Your task to perform on an android device: Show me recent news Image 0: 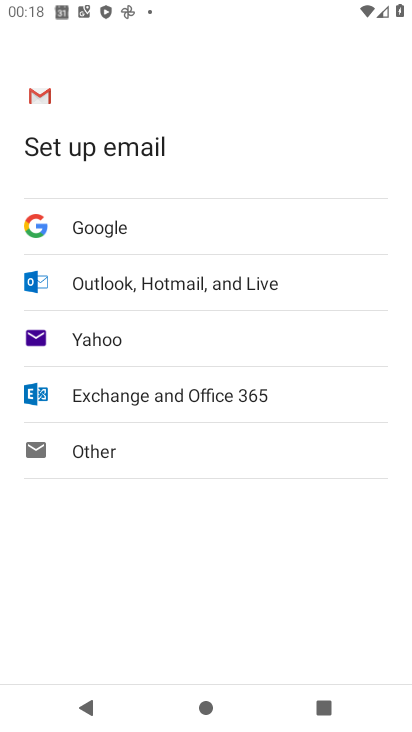
Step 0: press back button
Your task to perform on an android device: Show me recent news Image 1: 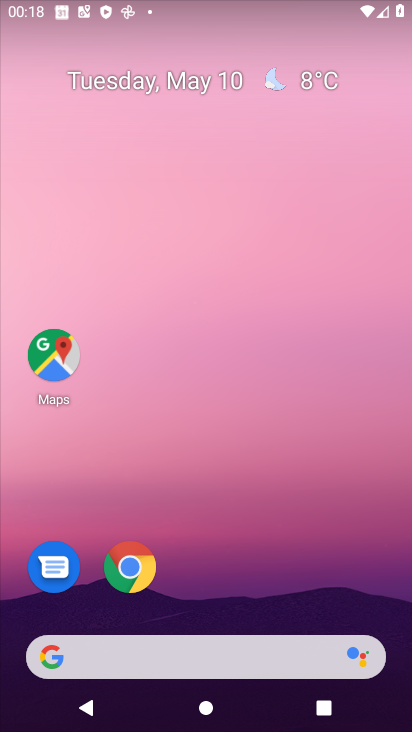
Step 1: drag from (205, 561) to (255, 36)
Your task to perform on an android device: Show me recent news Image 2: 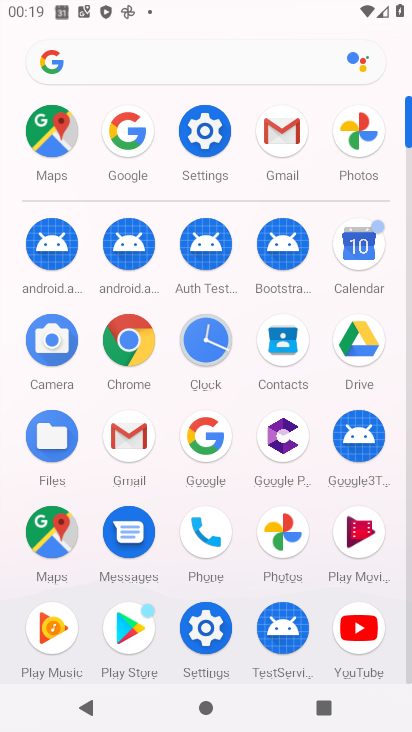
Step 2: click (126, 133)
Your task to perform on an android device: Show me recent news Image 3: 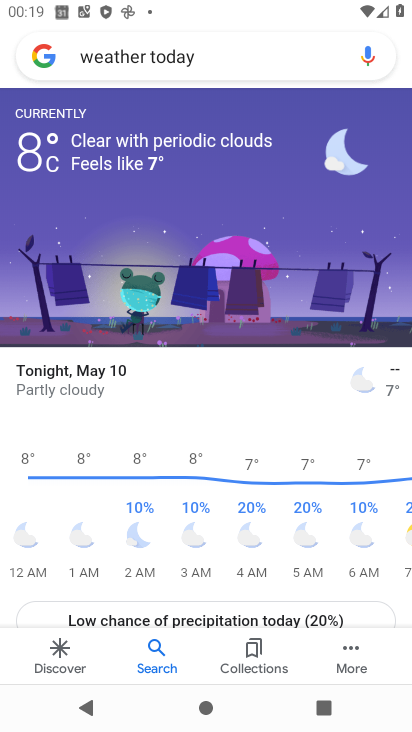
Step 3: click (254, 60)
Your task to perform on an android device: Show me recent news Image 4: 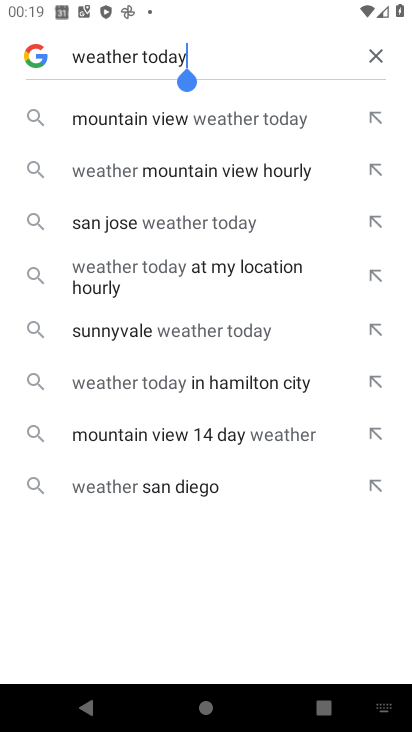
Step 4: click (379, 59)
Your task to perform on an android device: Show me recent news Image 5: 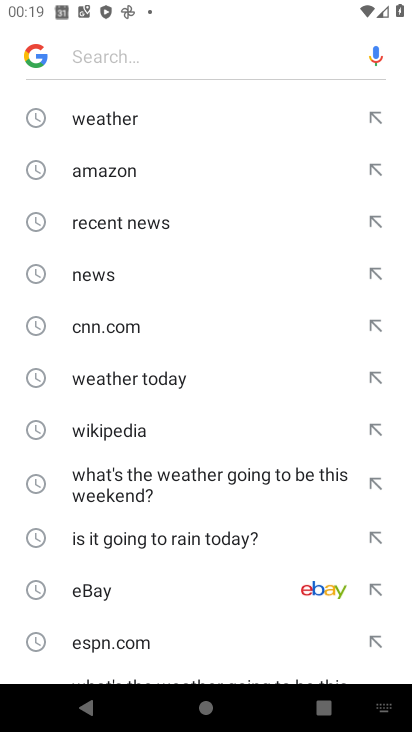
Step 5: type "recent news"
Your task to perform on an android device: Show me recent news Image 6: 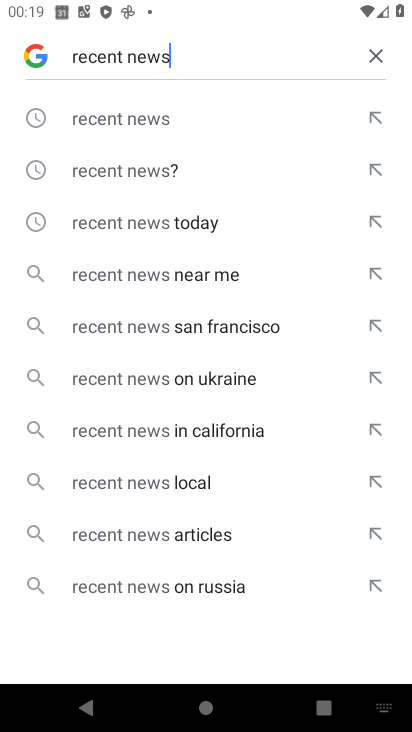
Step 6: click (150, 119)
Your task to perform on an android device: Show me recent news Image 7: 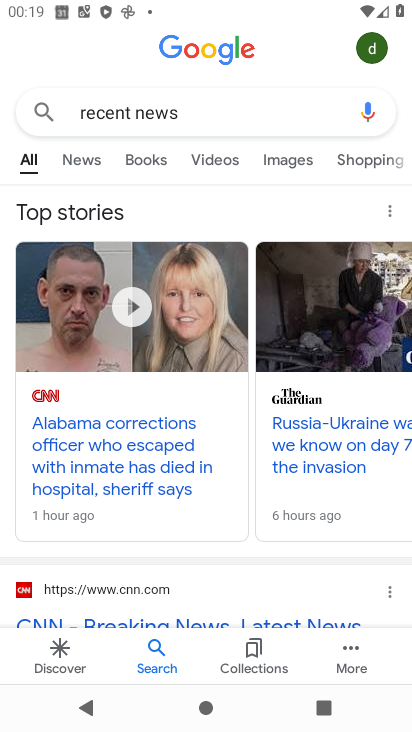
Step 7: task complete